Your task to perform on an android device: Go to Reddit.com Image 0: 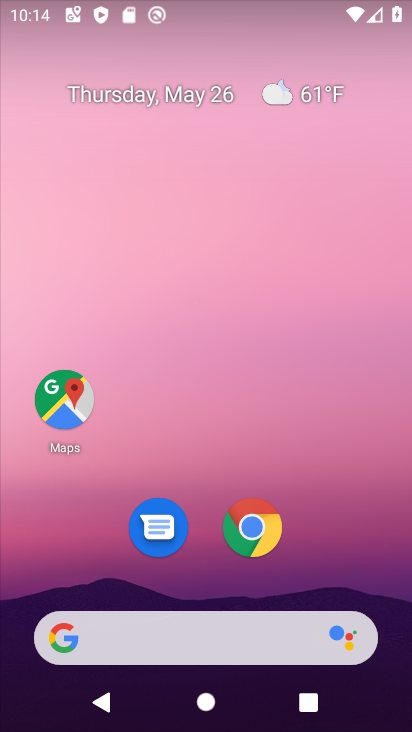
Step 0: click (266, 538)
Your task to perform on an android device: Go to Reddit.com Image 1: 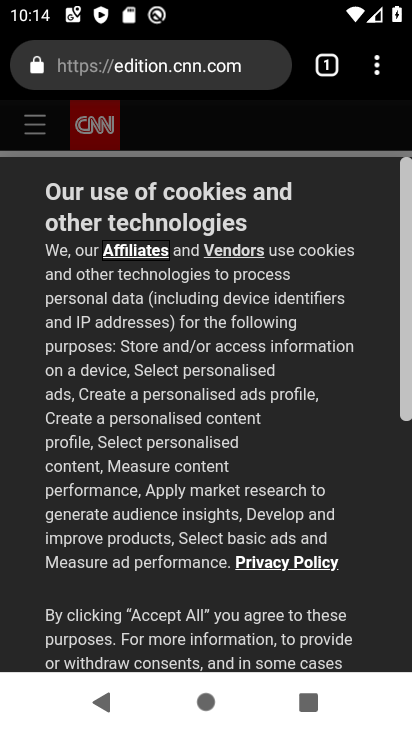
Step 1: click (331, 66)
Your task to perform on an android device: Go to Reddit.com Image 2: 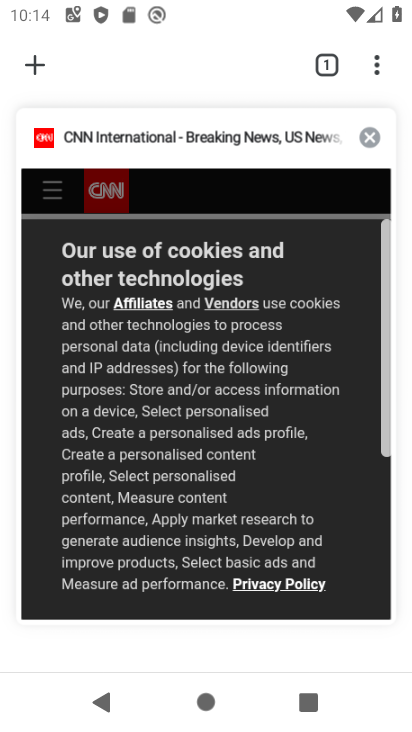
Step 2: click (39, 71)
Your task to perform on an android device: Go to Reddit.com Image 3: 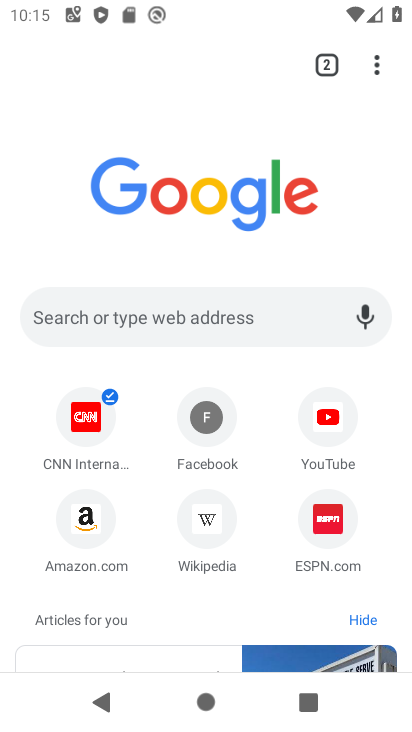
Step 3: click (87, 311)
Your task to perform on an android device: Go to Reddit.com Image 4: 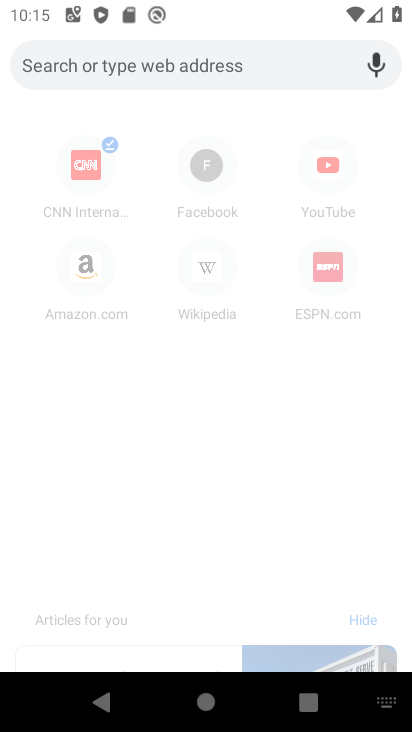
Step 4: type "reddit.com"
Your task to perform on an android device: Go to Reddit.com Image 5: 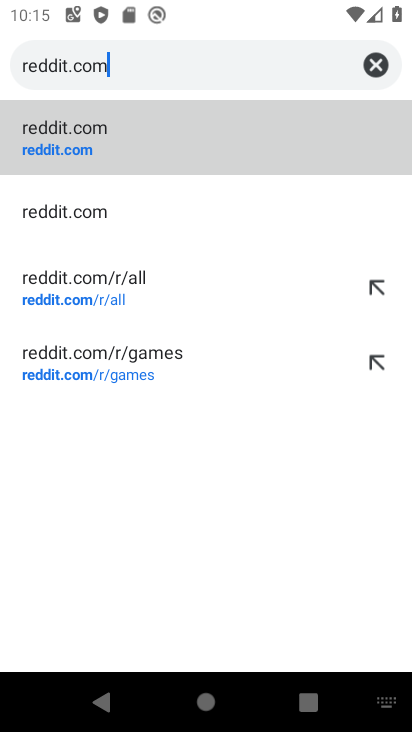
Step 5: click (72, 148)
Your task to perform on an android device: Go to Reddit.com Image 6: 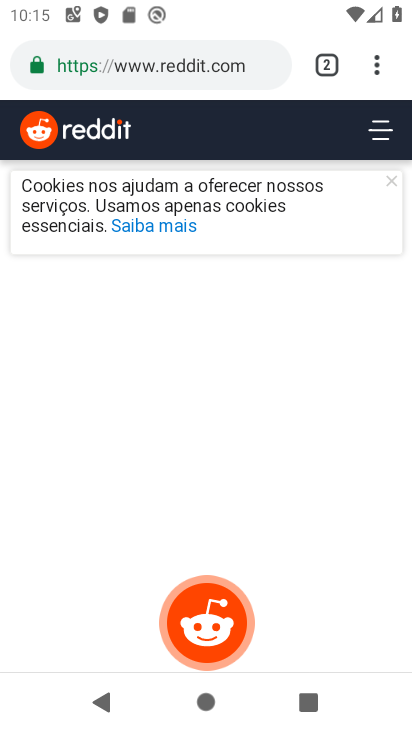
Step 6: task complete